Your task to perform on an android device: uninstall "eBay: The shopping marketplace" Image 0: 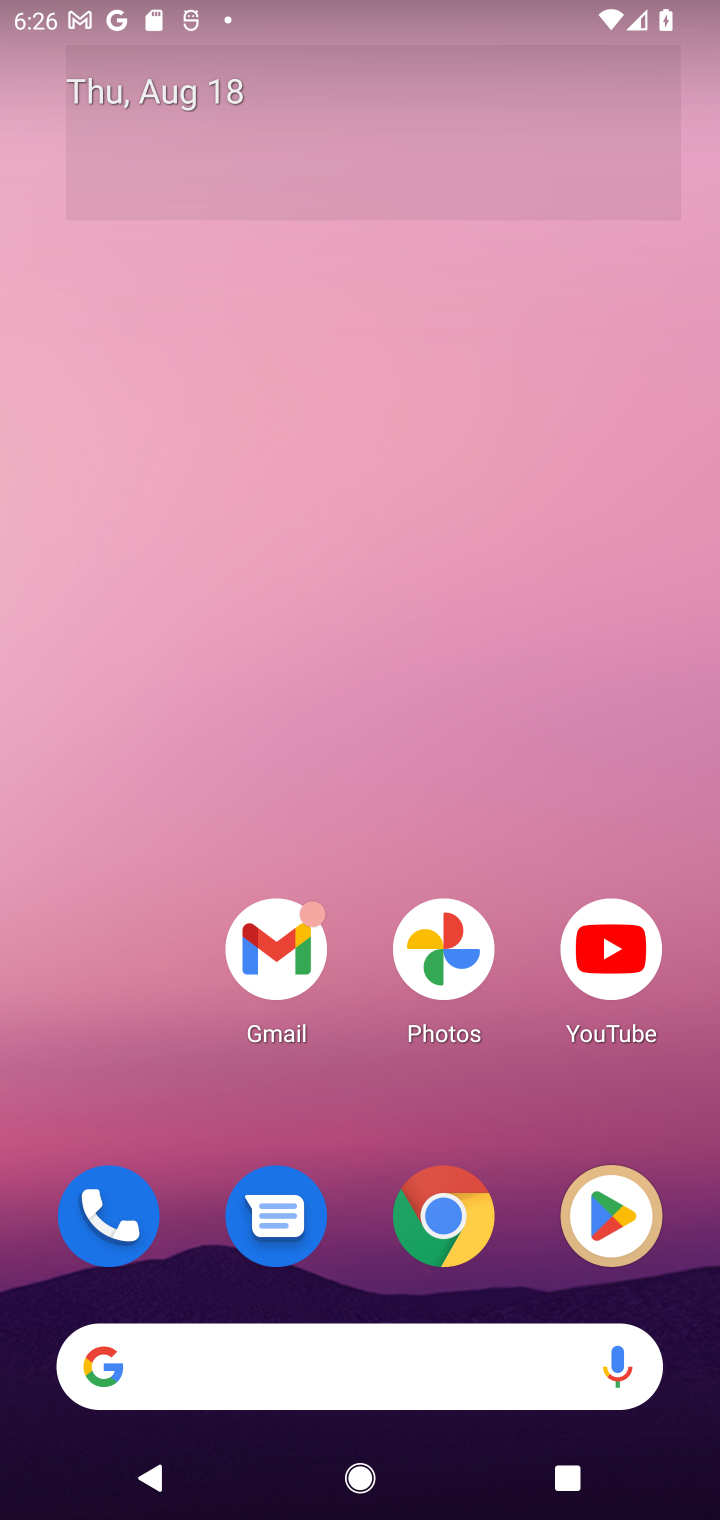
Step 0: drag from (513, 1288) to (484, 377)
Your task to perform on an android device: uninstall "eBay: The shopping marketplace" Image 1: 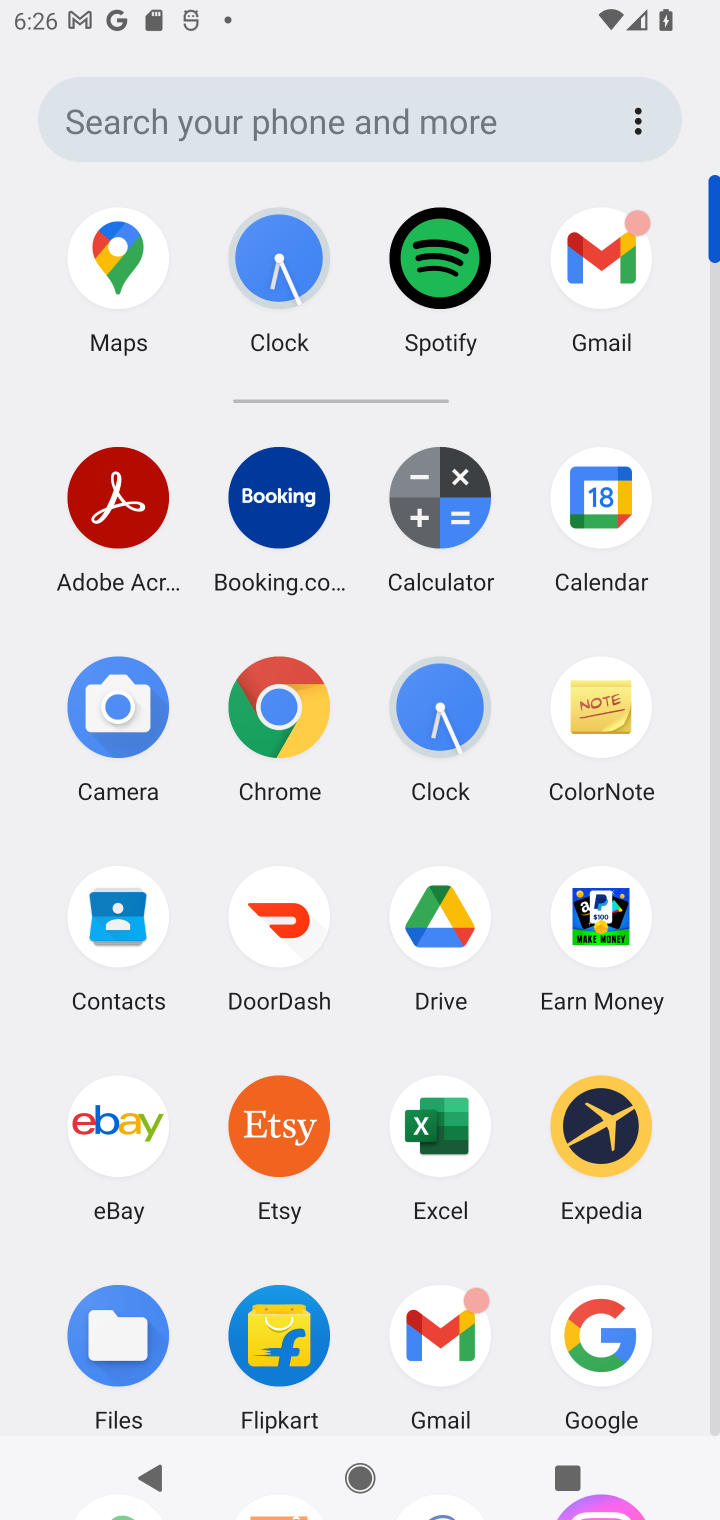
Step 1: drag from (522, 1332) to (499, 474)
Your task to perform on an android device: uninstall "eBay: The shopping marketplace" Image 2: 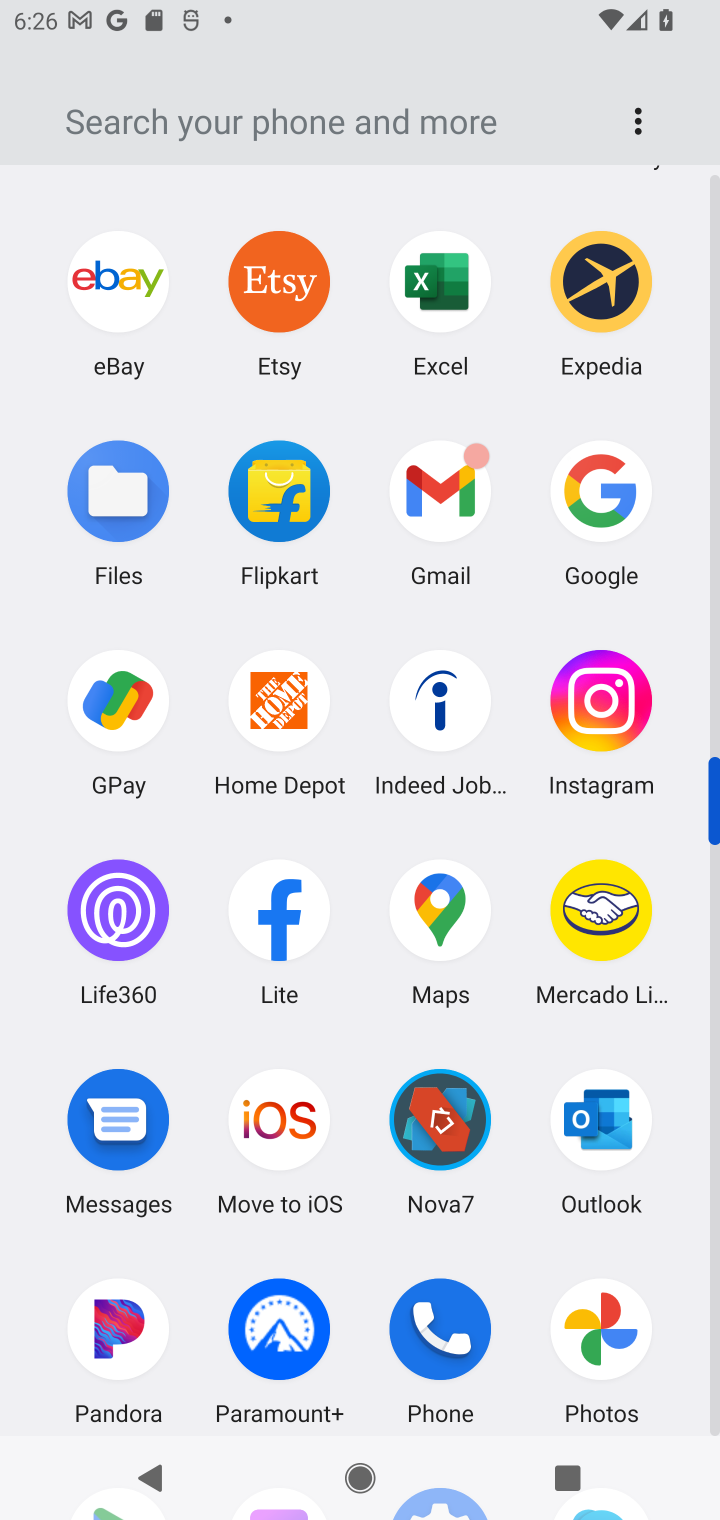
Step 2: drag from (520, 1353) to (503, 411)
Your task to perform on an android device: uninstall "eBay: The shopping marketplace" Image 3: 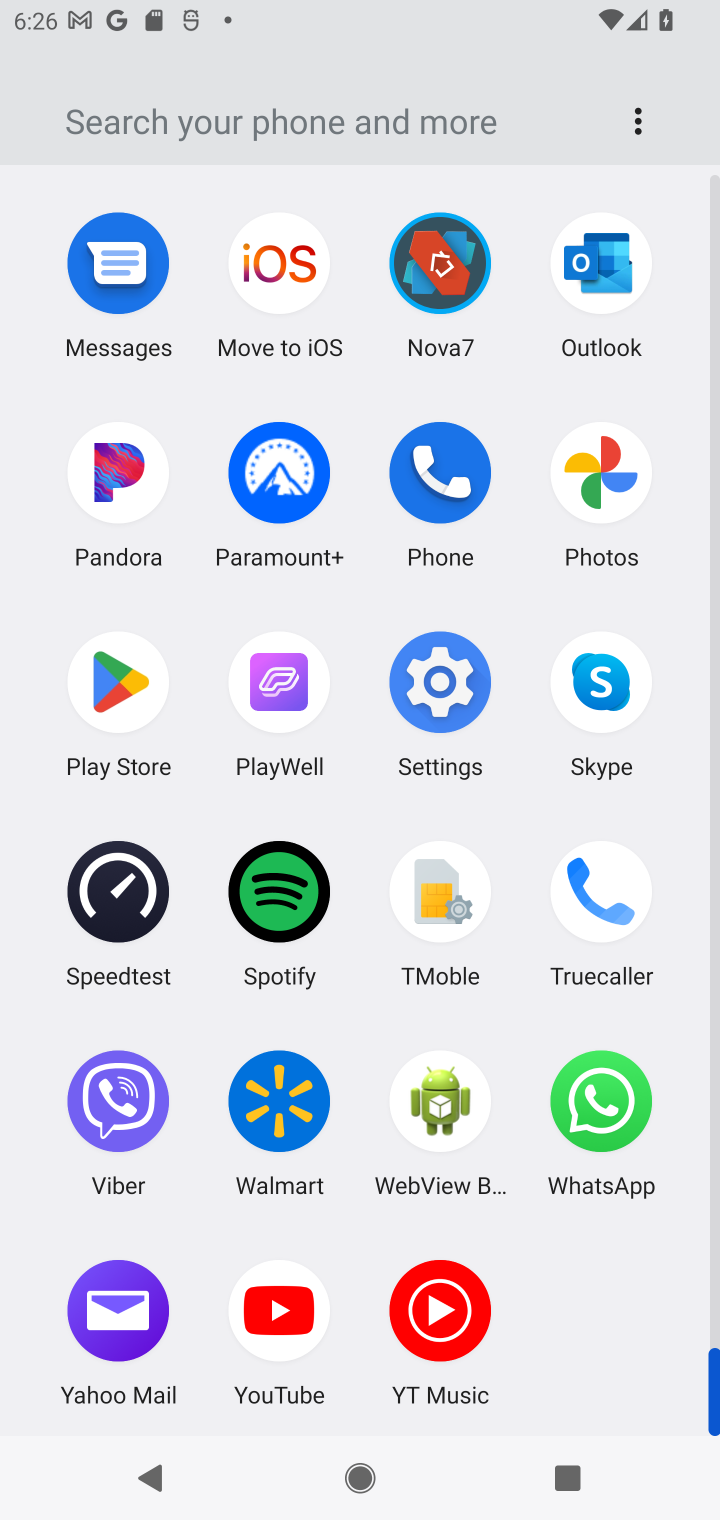
Step 3: click (109, 680)
Your task to perform on an android device: uninstall "eBay: The shopping marketplace" Image 4: 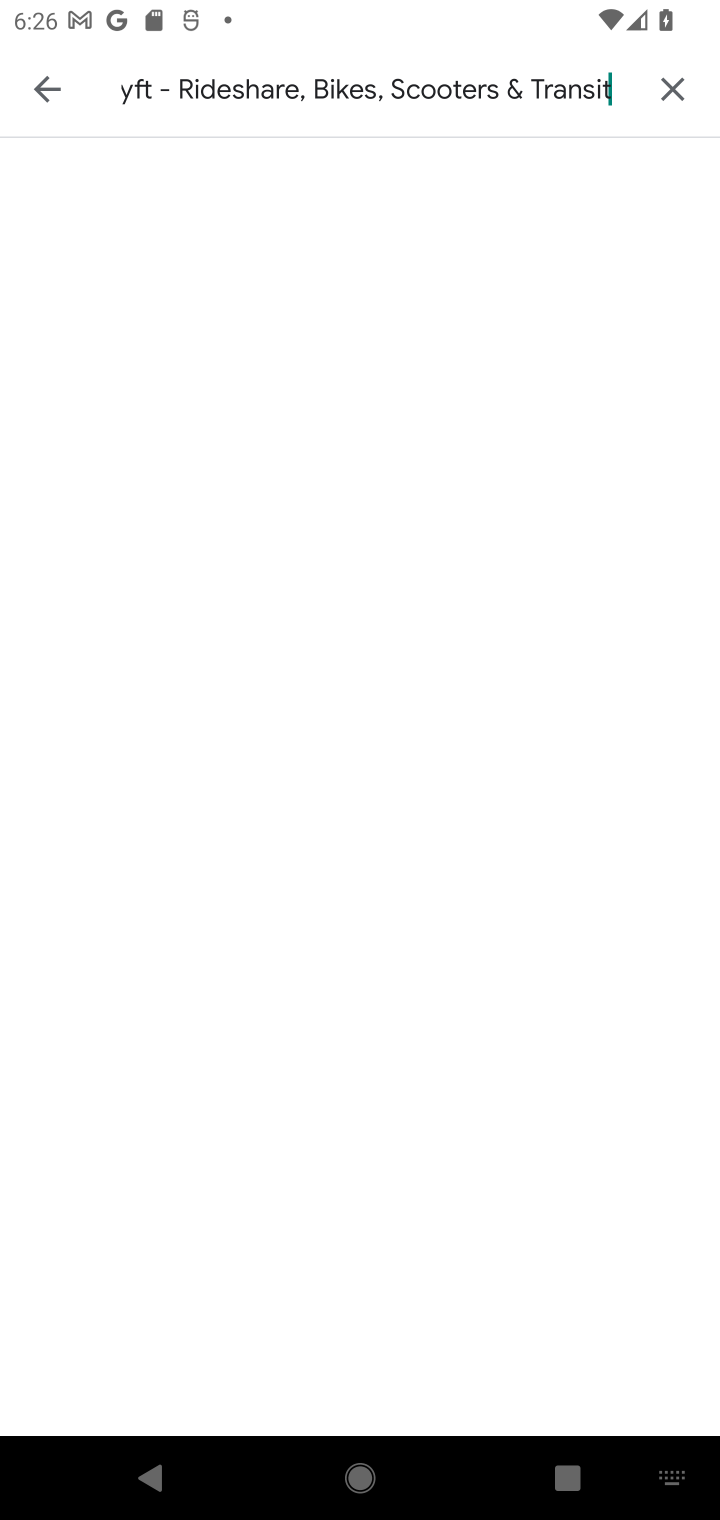
Step 4: click (666, 78)
Your task to perform on an android device: uninstall "eBay: The shopping marketplace" Image 5: 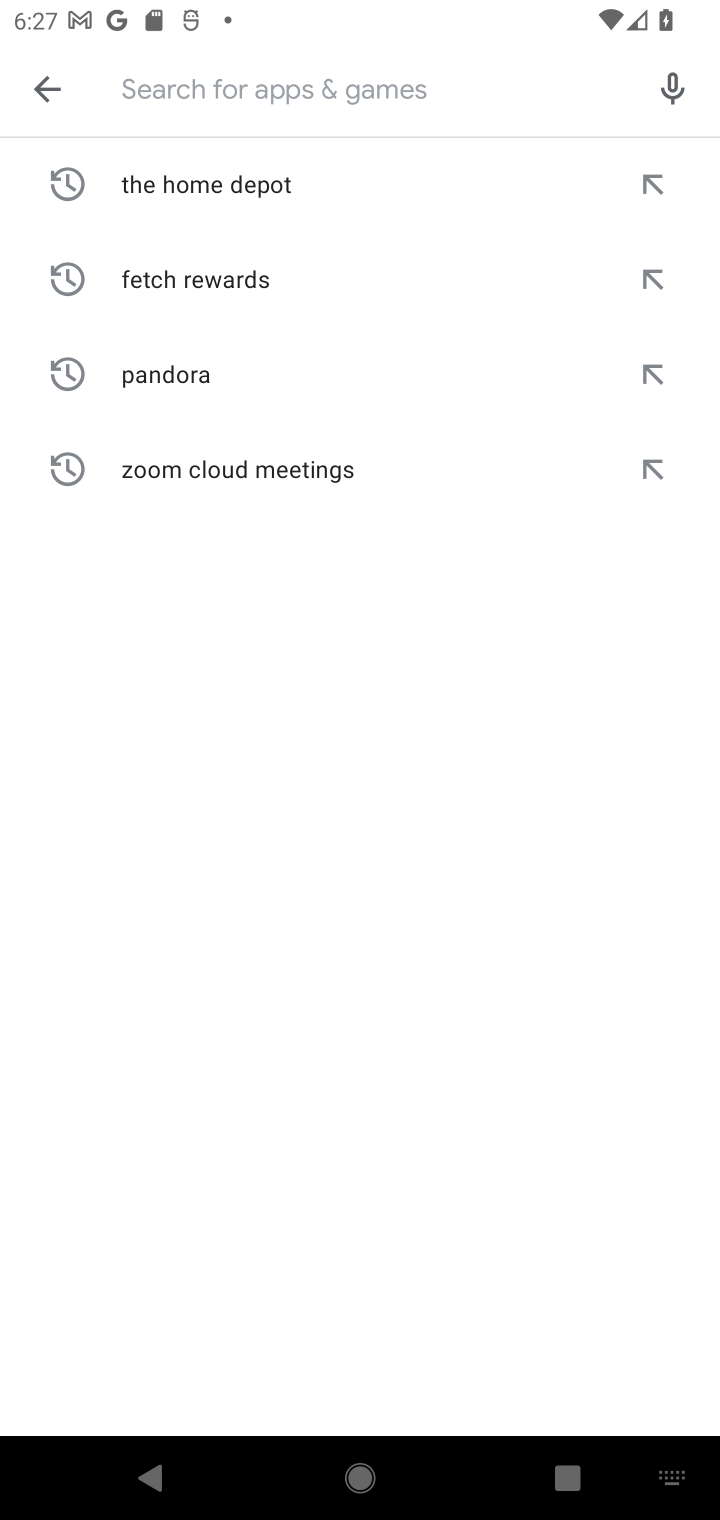
Step 5: type "eBay: The shopping marketplace"
Your task to perform on an android device: uninstall "eBay: The shopping marketplace" Image 6: 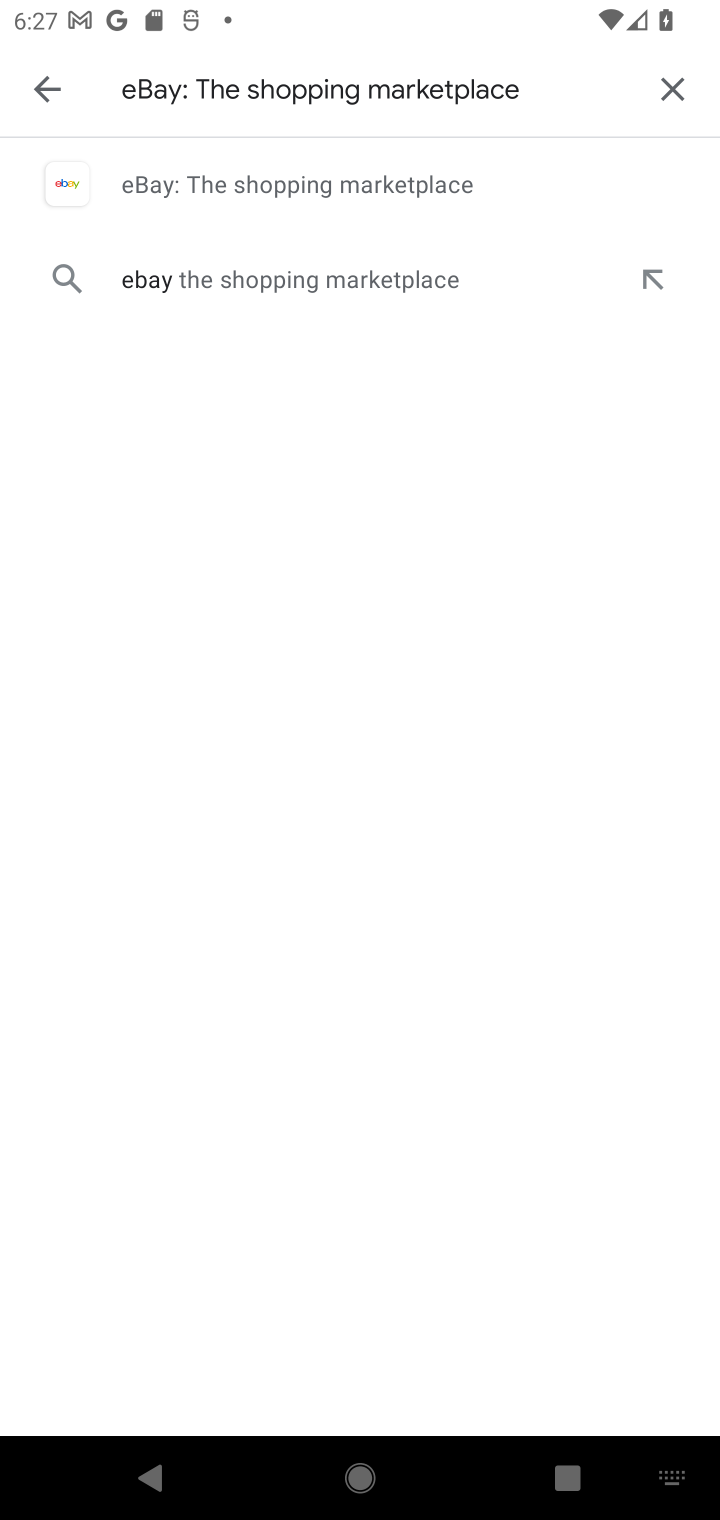
Step 6: click (259, 190)
Your task to perform on an android device: uninstall "eBay: The shopping marketplace" Image 7: 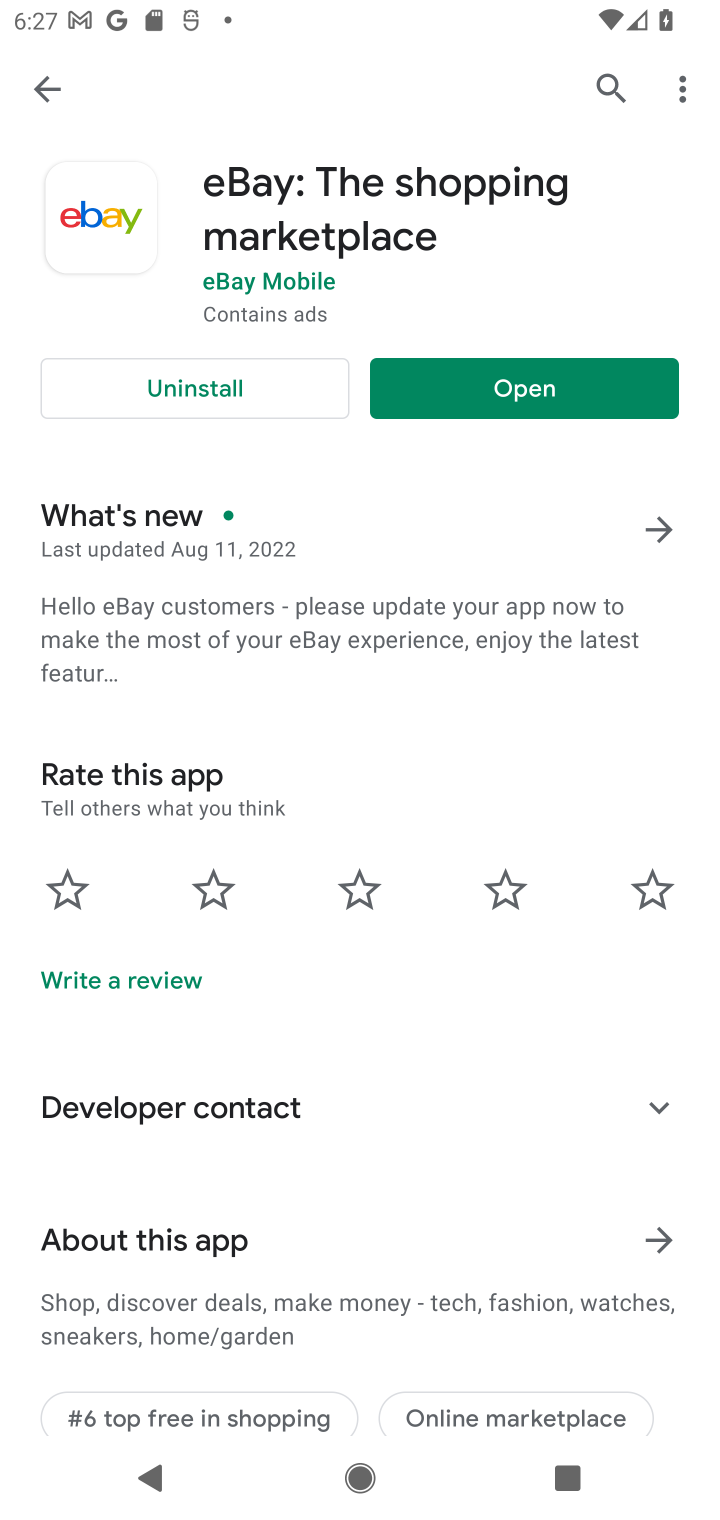
Step 7: click (176, 374)
Your task to perform on an android device: uninstall "eBay: The shopping marketplace" Image 8: 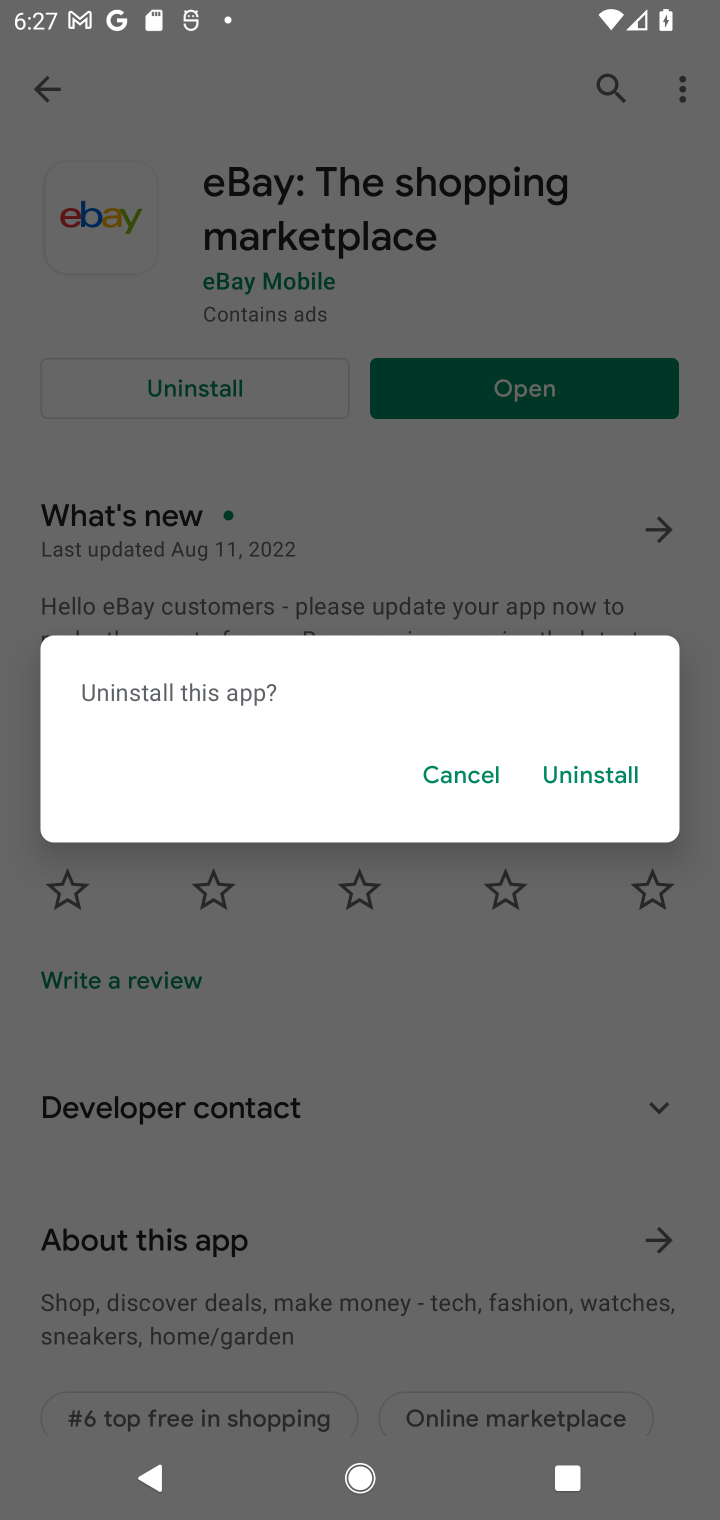
Step 8: click (581, 774)
Your task to perform on an android device: uninstall "eBay: The shopping marketplace" Image 9: 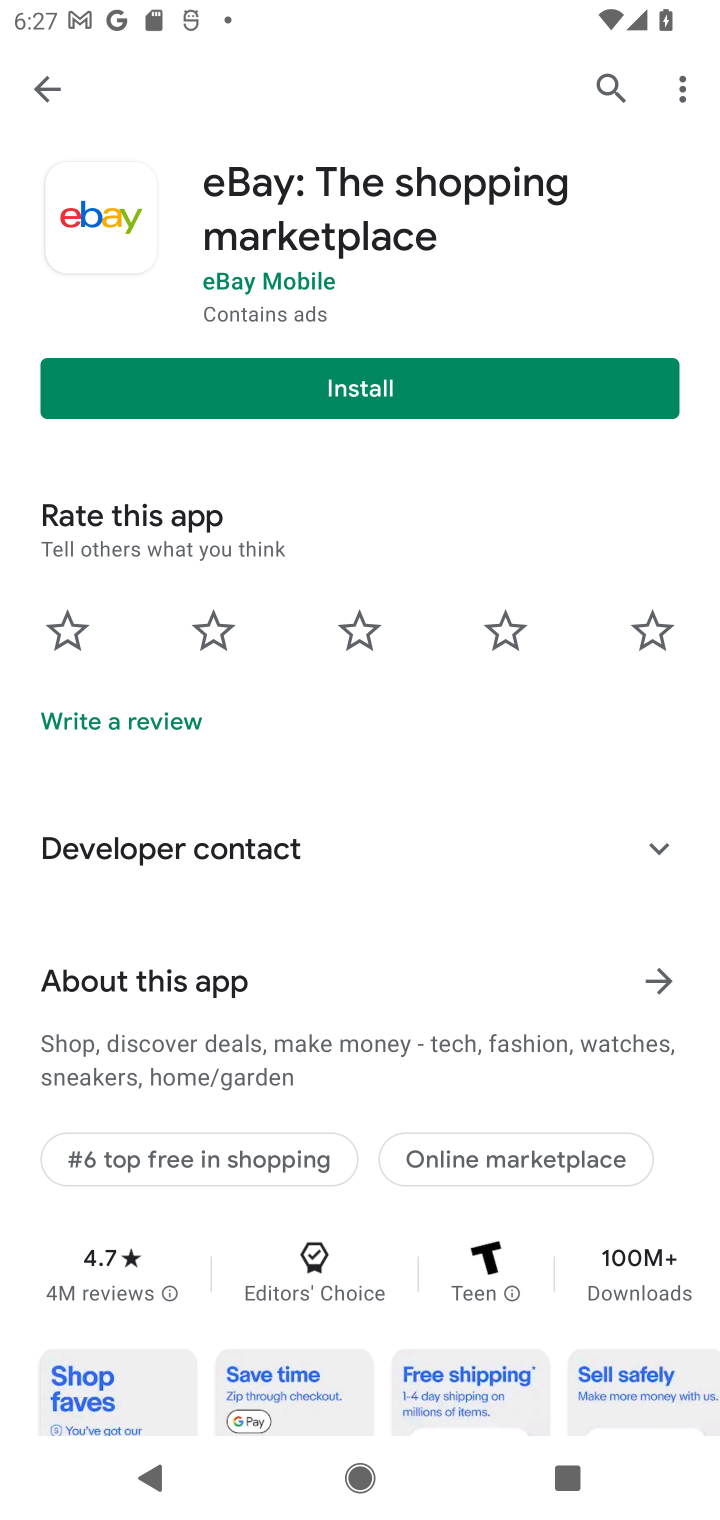
Step 9: task complete